Your task to perform on an android device: check the backup settings in the google photos Image 0: 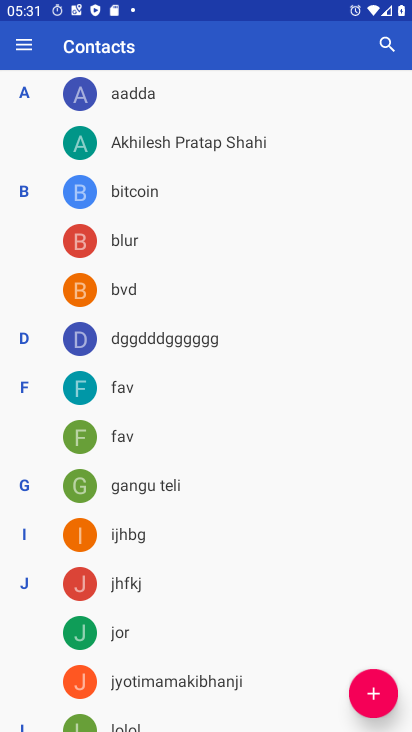
Step 0: press home button
Your task to perform on an android device: check the backup settings in the google photos Image 1: 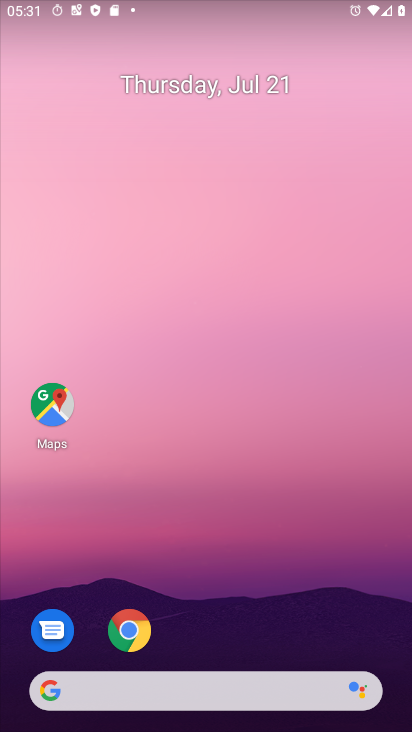
Step 1: drag from (177, 699) to (260, 256)
Your task to perform on an android device: check the backup settings in the google photos Image 2: 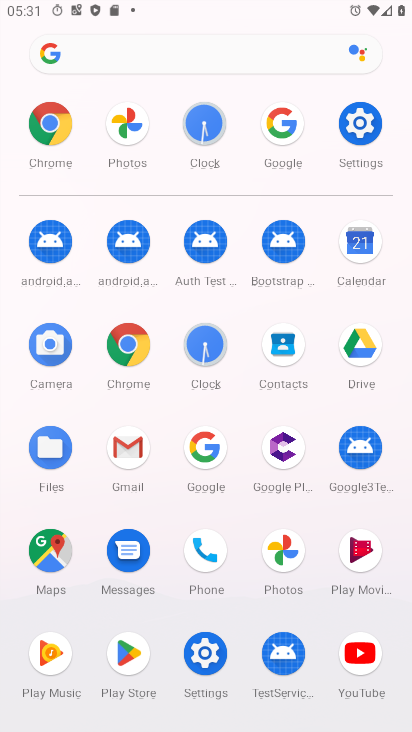
Step 2: click (127, 122)
Your task to perform on an android device: check the backup settings in the google photos Image 3: 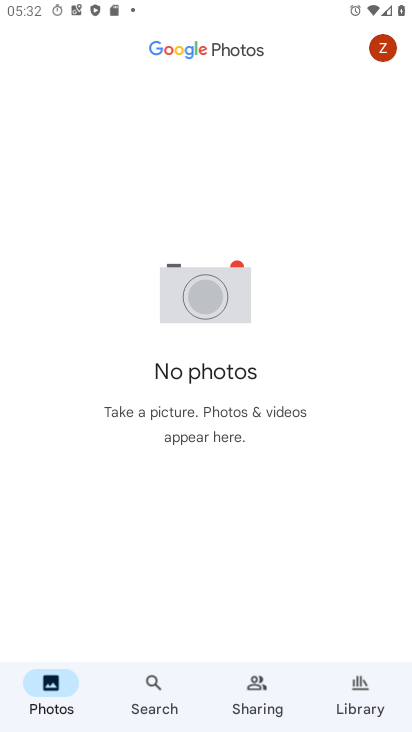
Step 3: click (381, 48)
Your task to perform on an android device: check the backup settings in the google photos Image 4: 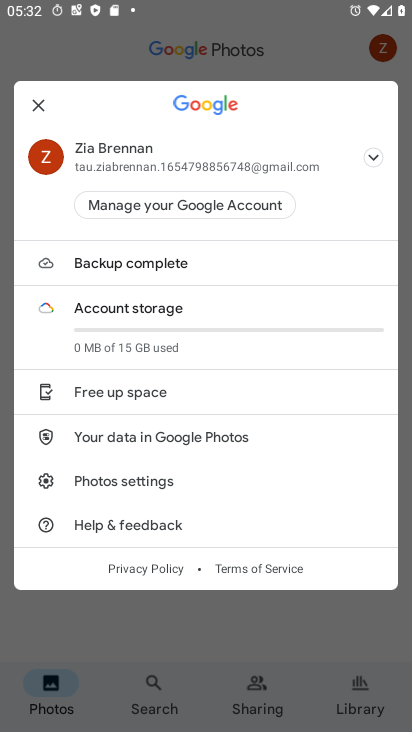
Step 4: click (119, 483)
Your task to perform on an android device: check the backup settings in the google photos Image 5: 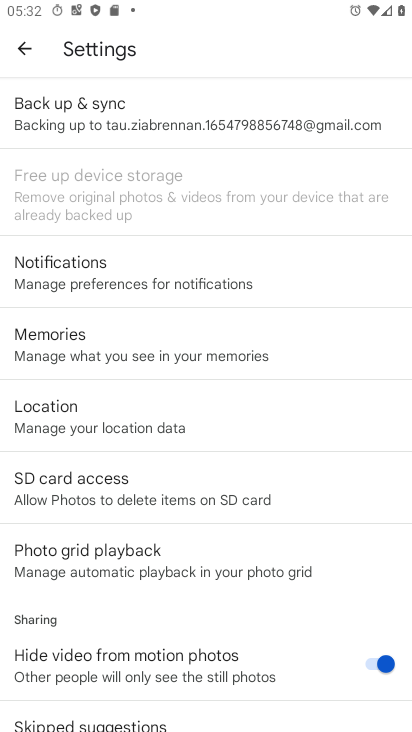
Step 5: click (144, 121)
Your task to perform on an android device: check the backup settings in the google photos Image 6: 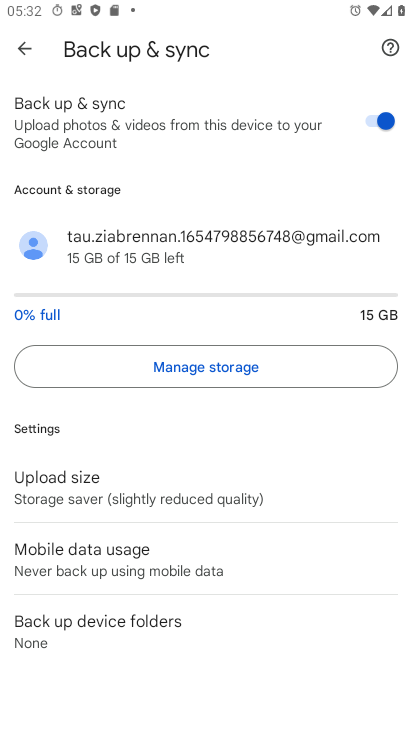
Step 6: task complete